Your task to perform on an android device: Open the Play Movies app and select the watchlist tab. Image 0: 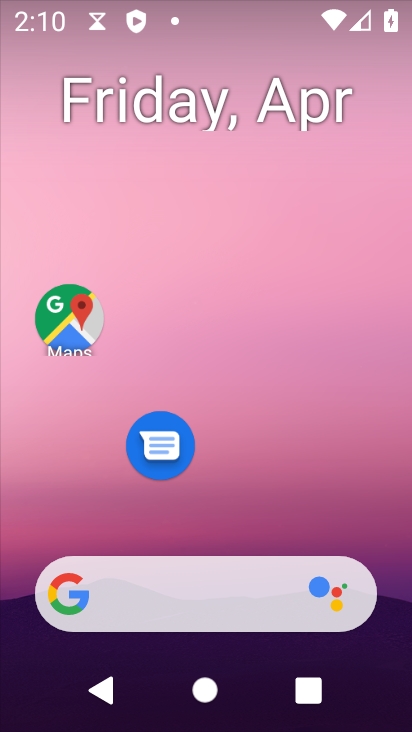
Step 0: drag from (291, 406) to (359, 17)
Your task to perform on an android device: Open the Play Movies app and select the watchlist tab. Image 1: 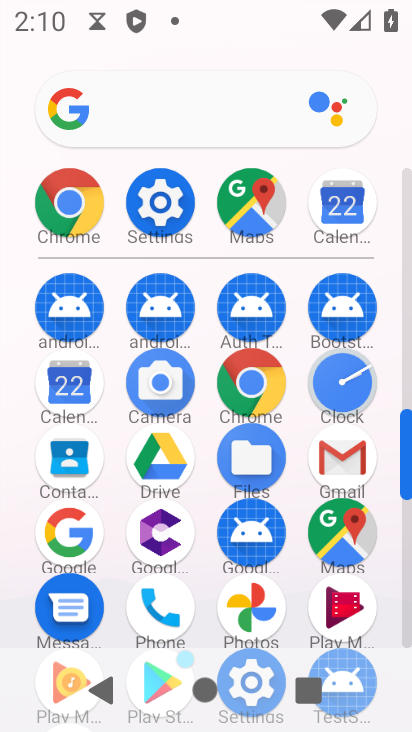
Step 1: click (345, 595)
Your task to perform on an android device: Open the Play Movies app and select the watchlist tab. Image 2: 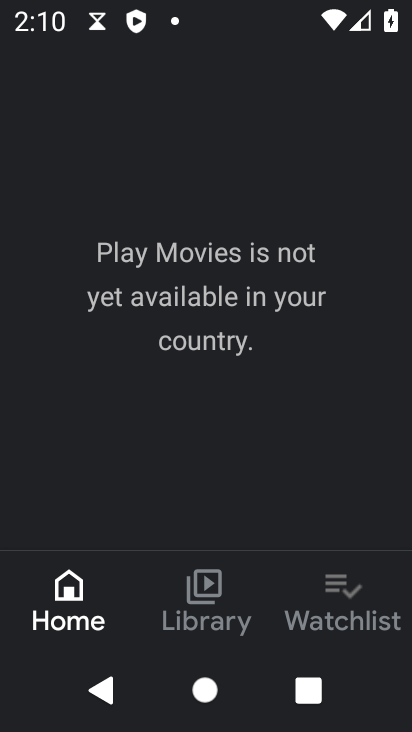
Step 2: click (334, 602)
Your task to perform on an android device: Open the Play Movies app and select the watchlist tab. Image 3: 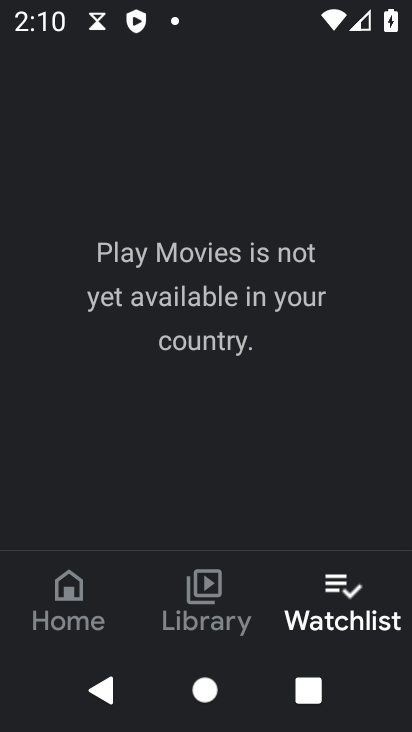
Step 3: task complete